Your task to perform on an android device: open app "Chime – Mobile Banking" (install if not already installed) and enter user name: "bullfrog@inbox.com" and password: "breaker" Image 0: 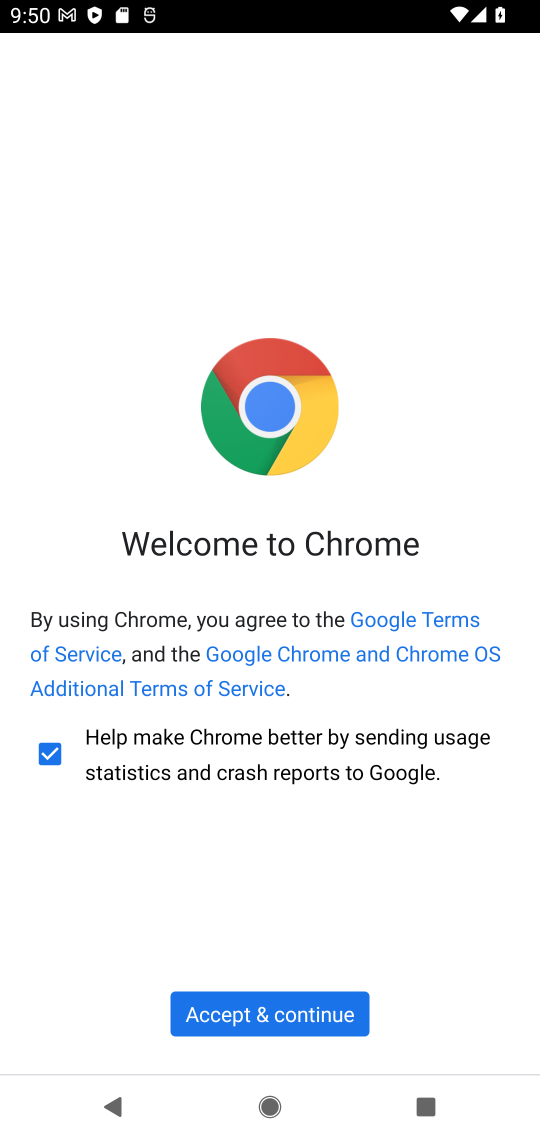
Step 0: click (302, 1030)
Your task to perform on an android device: open app "Chime – Mobile Banking" (install if not already installed) and enter user name: "bullfrog@inbox.com" and password: "breaker" Image 1: 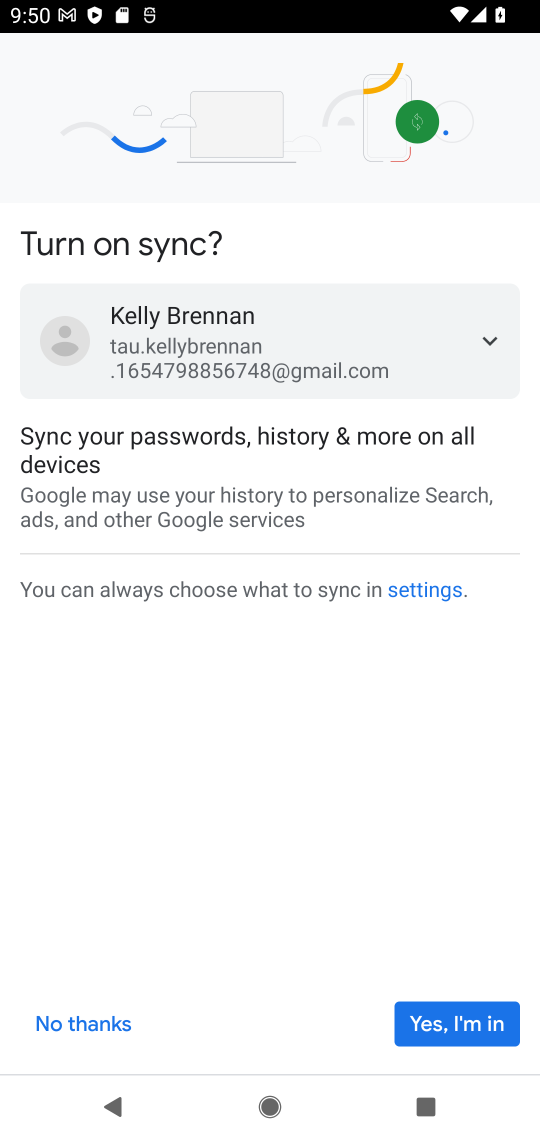
Step 1: click (420, 1029)
Your task to perform on an android device: open app "Chime – Mobile Banking" (install if not already installed) and enter user name: "bullfrog@inbox.com" and password: "breaker" Image 2: 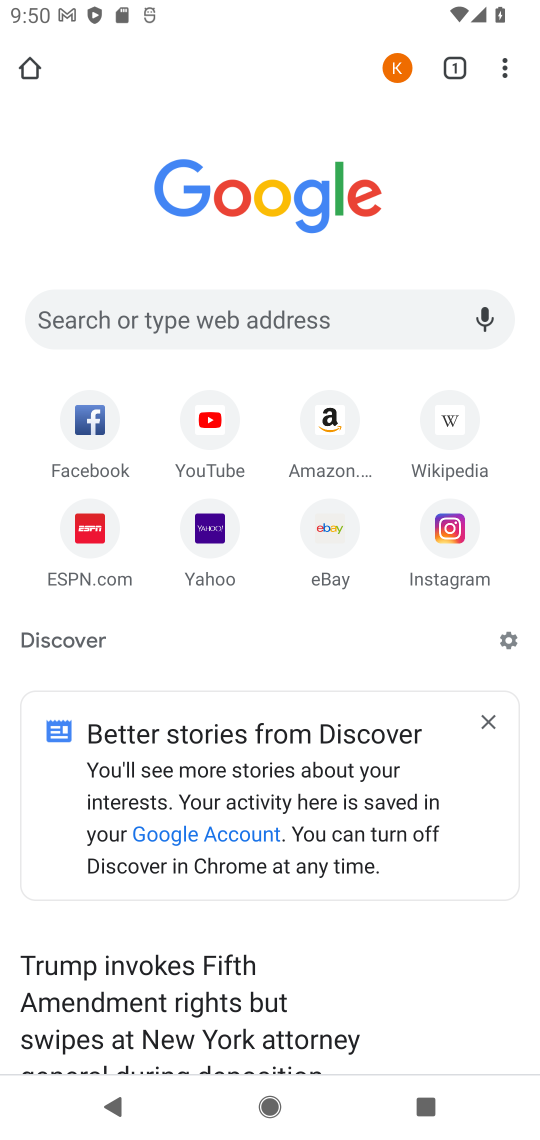
Step 2: press home button
Your task to perform on an android device: open app "Chime – Mobile Banking" (install if not already installed) and enter user name: "bullfrog@inbox.com" and password: "breaker" Image 3: 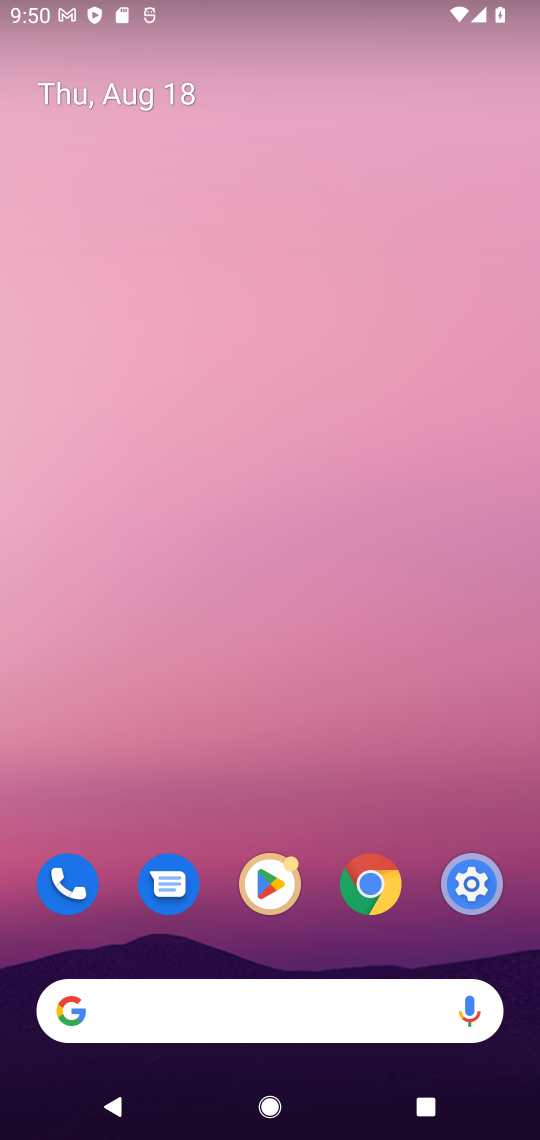
Step 3: click (274, 883)
Your task to perform on an android device: open app "Chime – Mobile Banking" (install if not already installed) and enter user name: "bullfrog@inbox.com" and password: "breaker" Image 4: 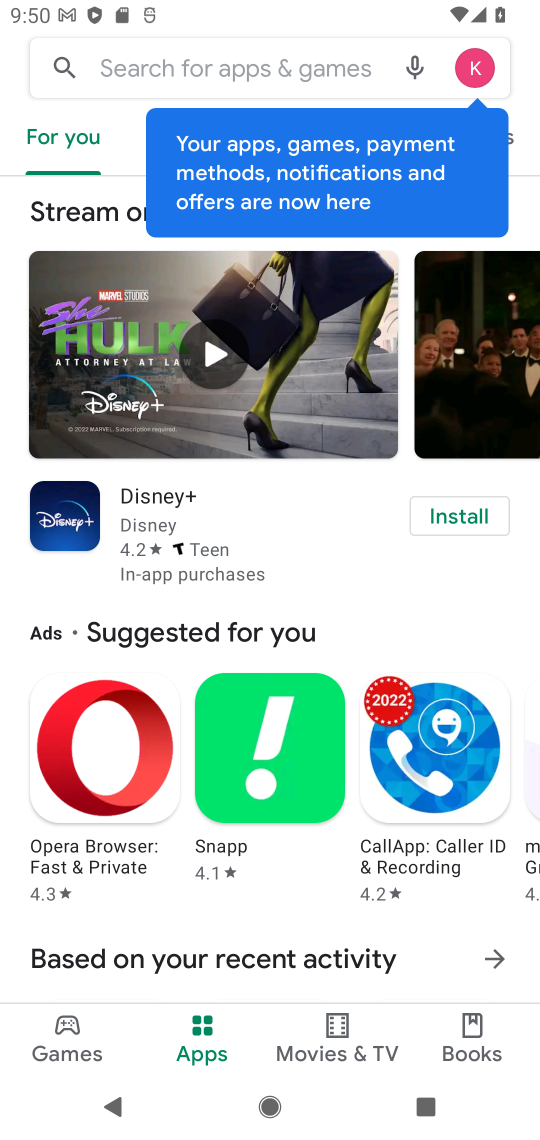
Step 4: click (272, 71)
Your task to perform on an android device: open app "Chime – Mobile Banking" (install if not already installed) and enter user name: "bullfrog@inbox.com" and password: "breaker" Image 5: 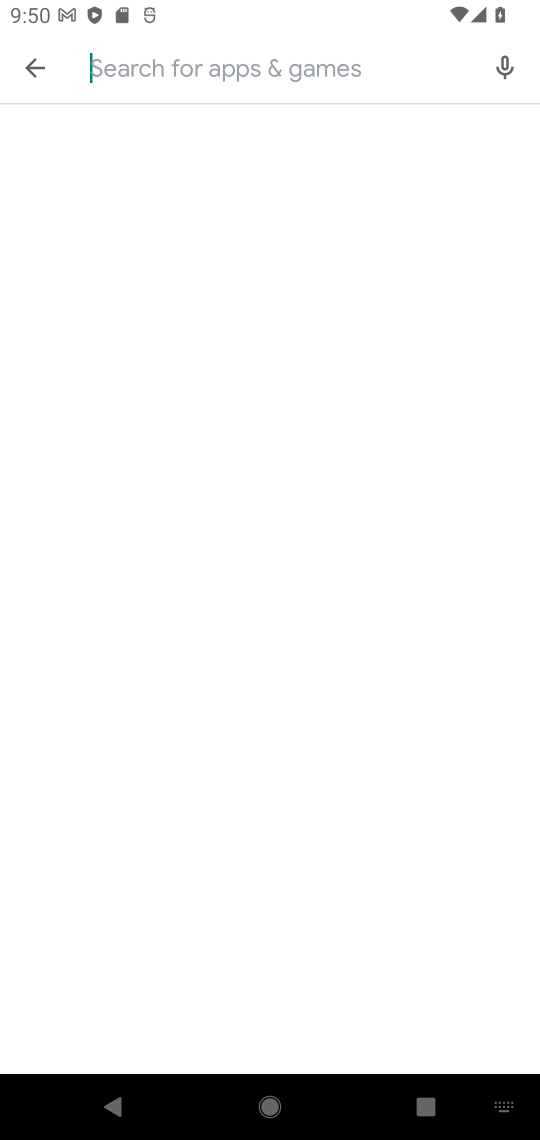
Step 5: type "chime"
Your task to perform on an android device: open app "Chime – Mobile Banking" (install if not already installed) and enter user name: "bullfrog@inbox.com" and password: "breaker" Image 6: 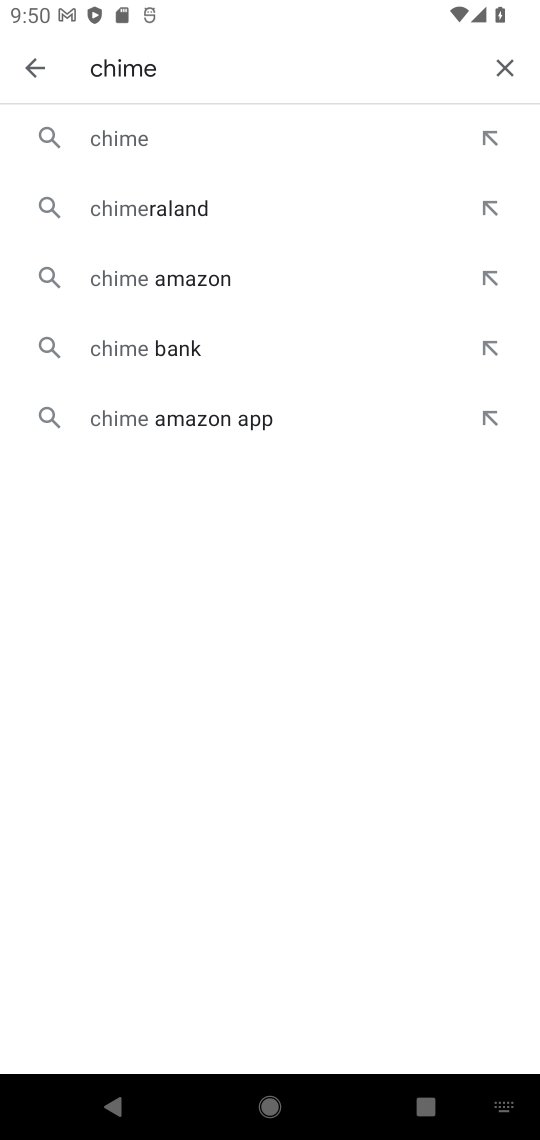
Step 6: click (130, 117)
Your task to perform on an android device: open app "Chime – Mobile Banking" (install if not already installed) and enter user name: "bullfrog@inbox.com" and password: "breaker" Image 7: 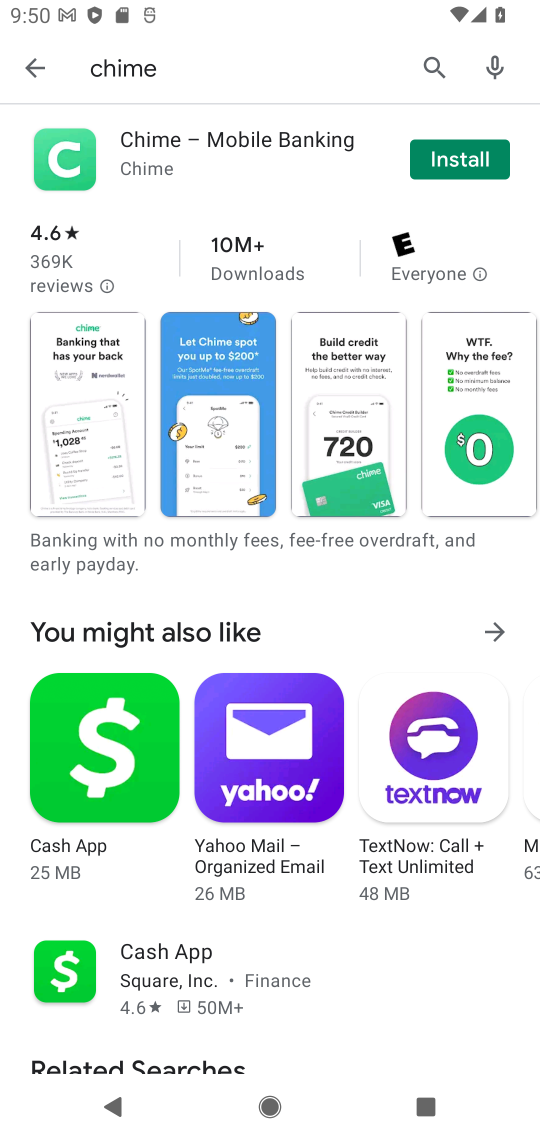
Step 7: click (460, 167)
Your task to perform on an android device: open app "Chime – Mobile Banking" (install if not already installed) and enter user name: "bullfrog@inbox.com" and password: "breaker" Image 8: 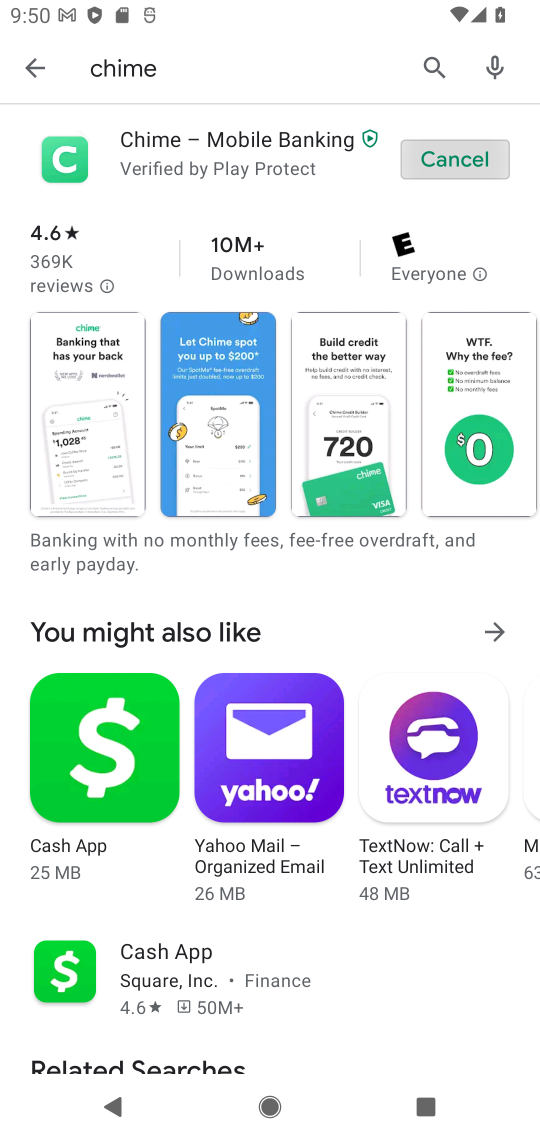
Step 8: task complete